Your task to perform on an android device: empty trash in the gmail app Image 0: 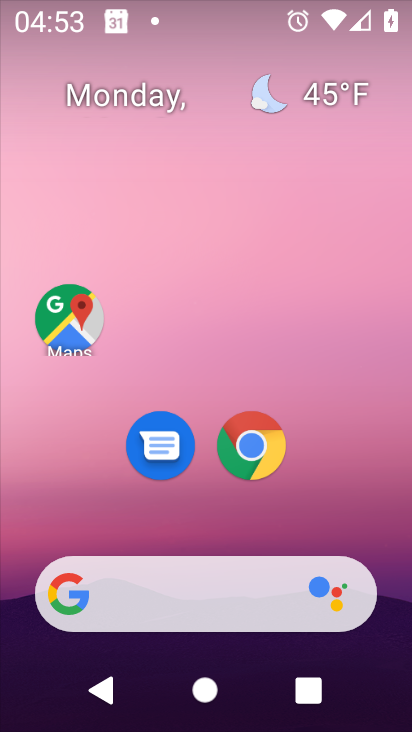
Step 0: drag from (264, 522) to (382, 25)
Your task to perform on an android device: empty trash in the gmail app Image 1: 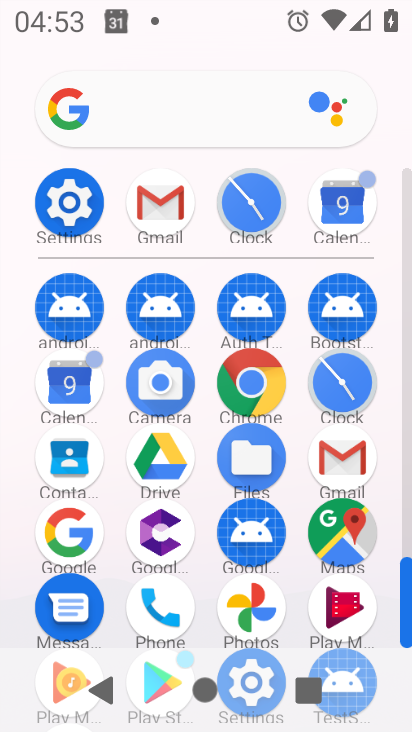
Step 1: click (154, 211)
Your task to perform on an android device: empty trash in the gmail app Image 2: 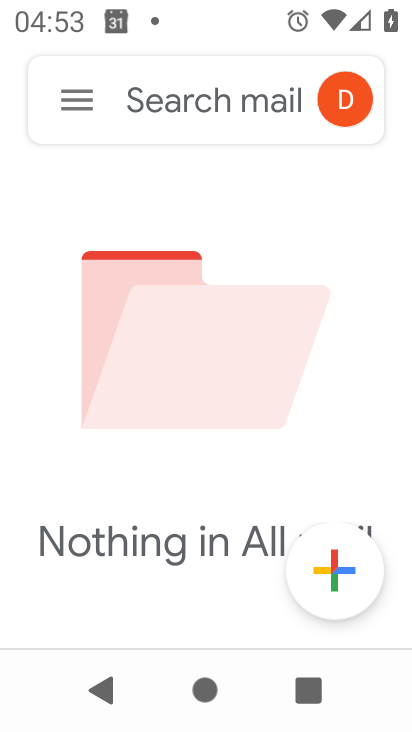
Step 2: click (78, 108)
Your task to perform on an android device: empty trash in the gmail app Image 3: 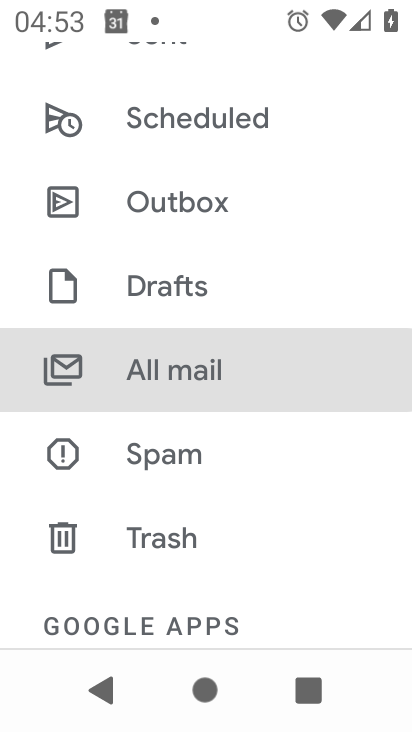
Step 3: click (181, 543)
Your task to perform on an android device: empty trash in the gmail app Image 4: 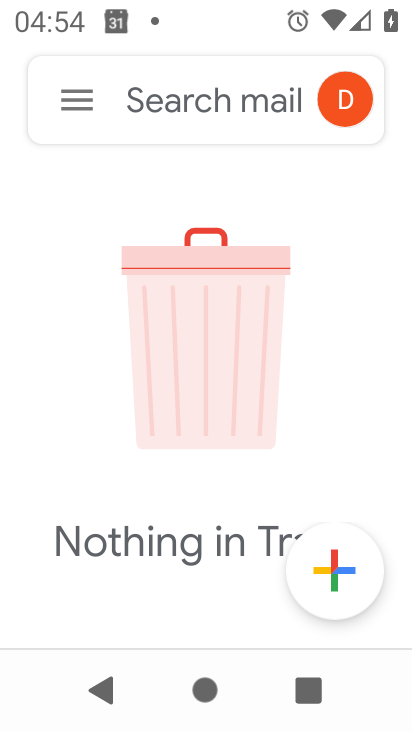
Step 4: task complete